Your task to perform on an android device: create a new album in the google photos Image 0: 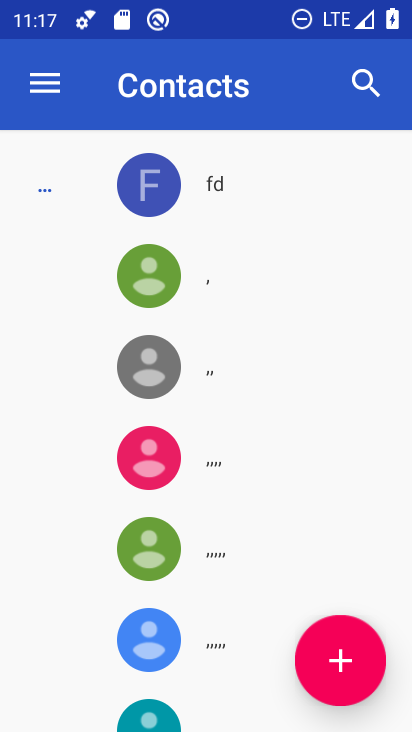
Step 0: press home button
Your task to perform on an android device: create a new album in the google photos Image 1: 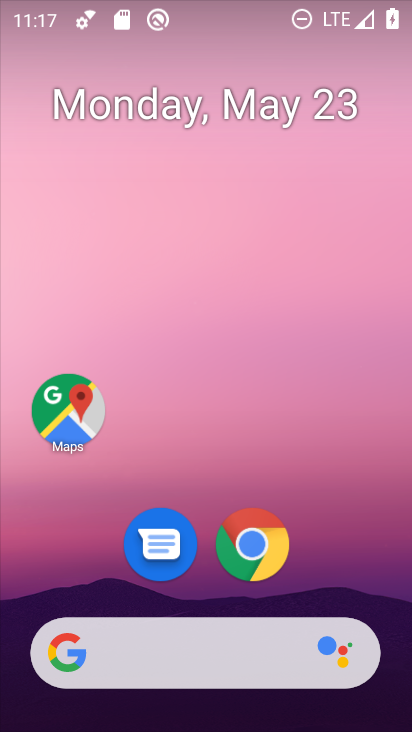
Step 1: drag from (383, 607) to (337, 59)
Your task to perform on an android device: create a new album in the google photos Image 2: 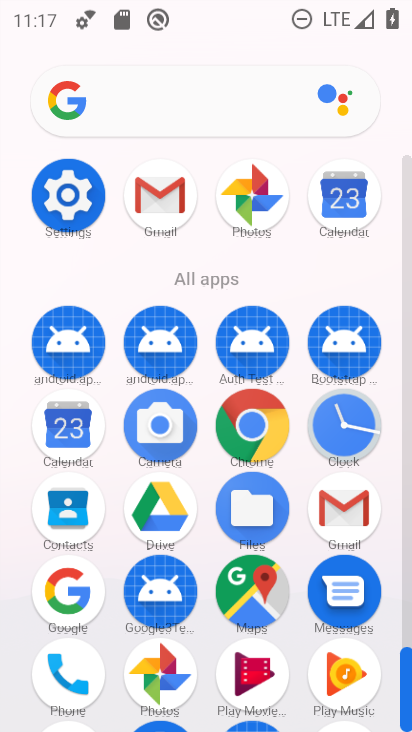
Step 2: click (161, 673)
Your task to perform on an android device: create a new album in the google photos Image 3: 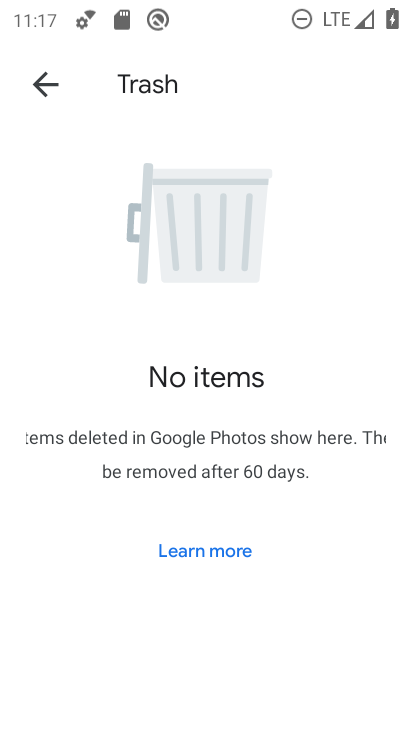
Step 3: press home button
Your task to perform on an android device: create a new album in the google photos Image 4: 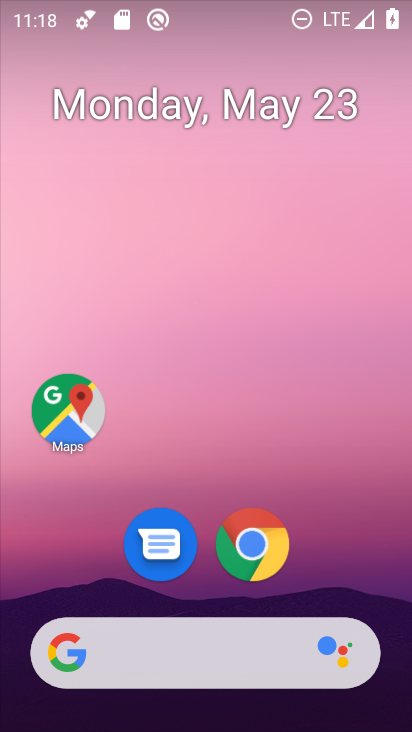
Step 4: drag from (374, 577) to (328, 112)
Your task to perform on an android device: create a new album in the google photos Image 5: 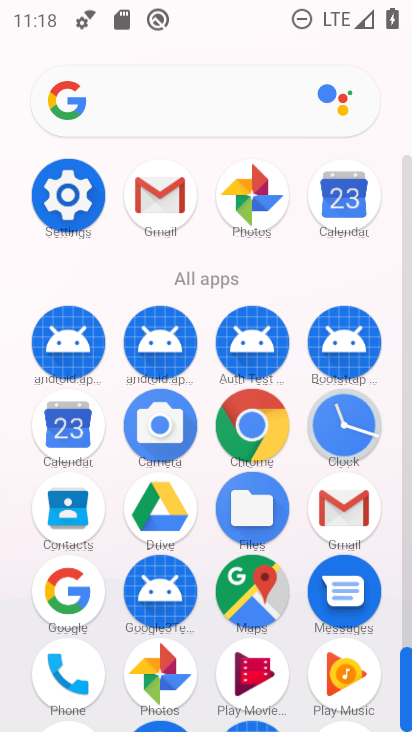
Step 5: click (410, 616)
Your task to perform on an android device: create a new album in the google photos Image 6: 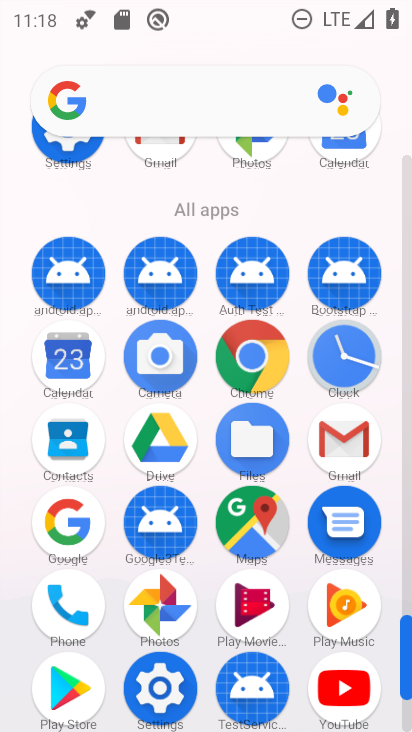
Step 6: click (162, 603)
Your task to perform on an android device: create a new album in the google photos Image 7: 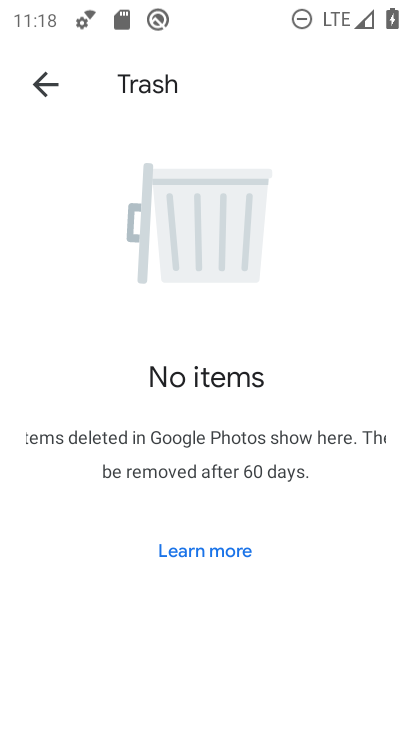
Step 7: press back button
Your task to perform on an android device: create a new album in the google photos Image 8: 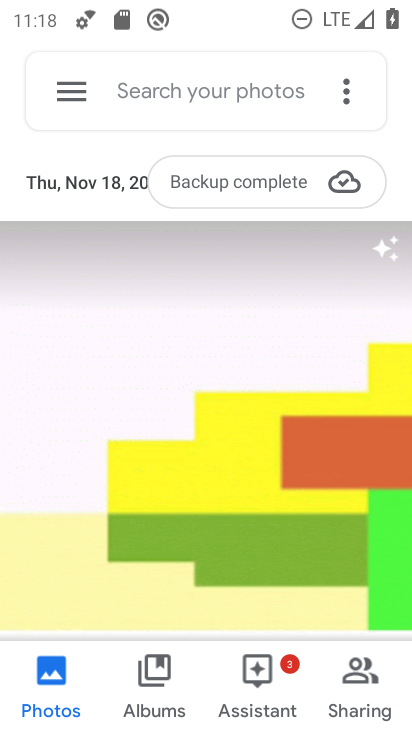
Step 8: click (157, 675)
Your task to perform on an android device: create a new album in the google photos Image 9: 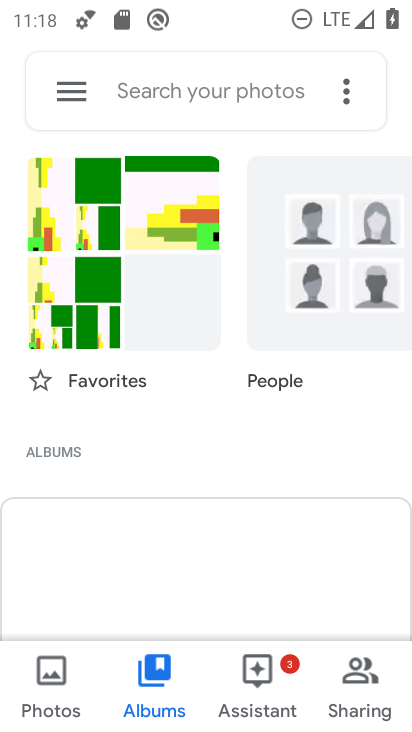
Step 9: drag from (195, 550) to (231, 228)
Your task to perform on an android device: create a new album in the google photos Image 10: 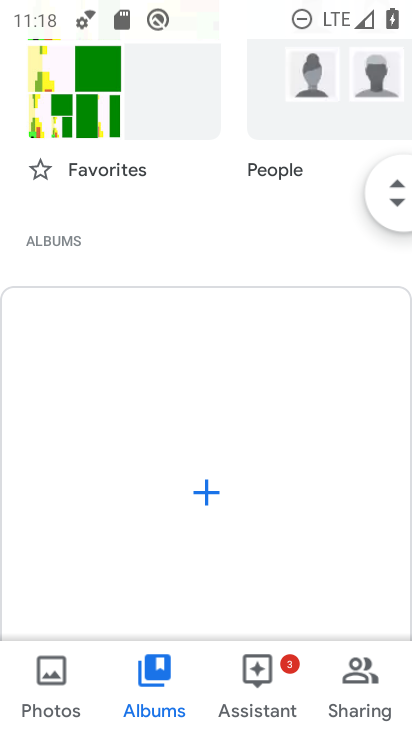
Step 10: click (200, 485)
Your task to perform on an android device: create a new album in the google photos Image 11: 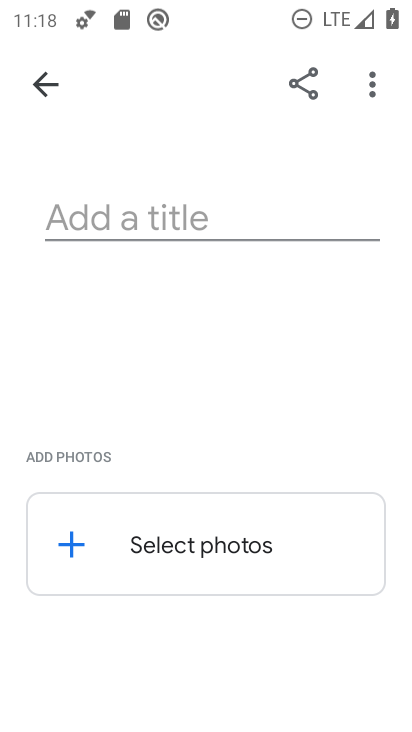
Step 11: click (122, 213)
Your task to perform on an android device: create a new album in the google photos Image 12: 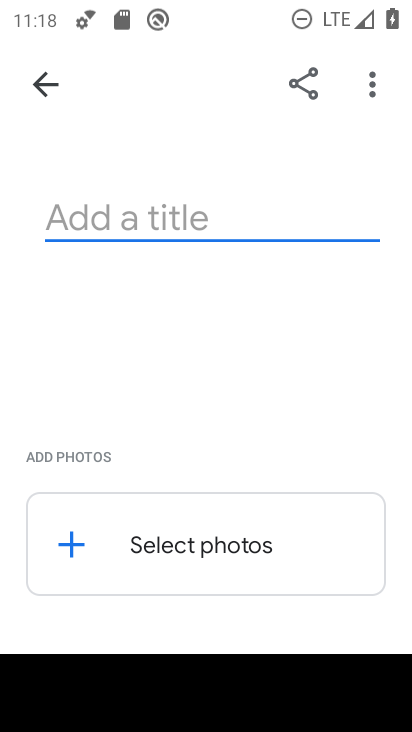
Step 12: type "gkghfh"
Your task to perform on an android device: create a new album in the google photos Image 13: 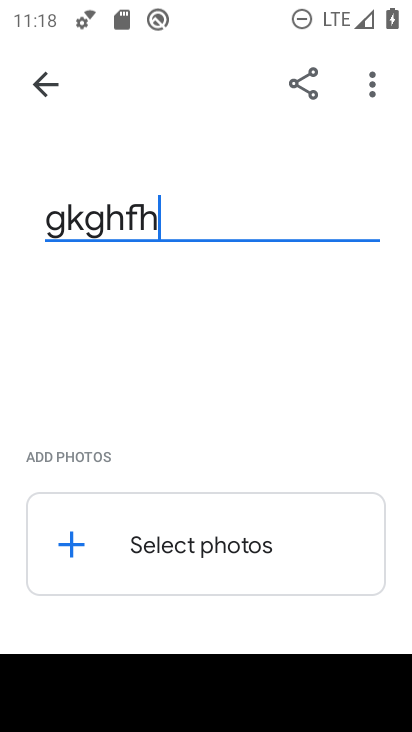
Step 13: click (74, 543)
Your task to perform on an android device: create a new album in the google photos Image 14: 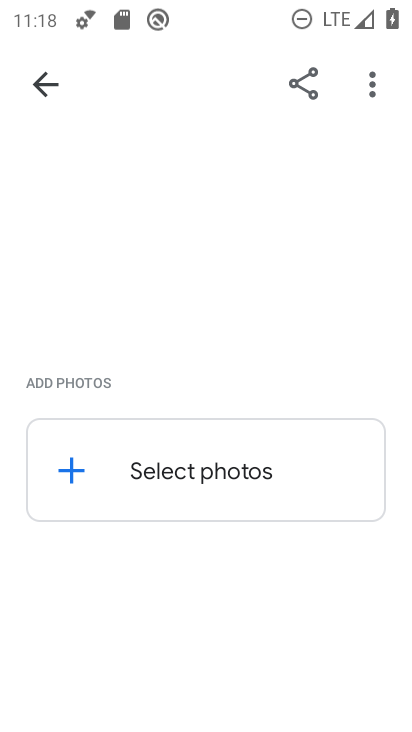
Step 14: click (71, 467)
Your task to perform on an android device: create a new album in the google photos Image 15: 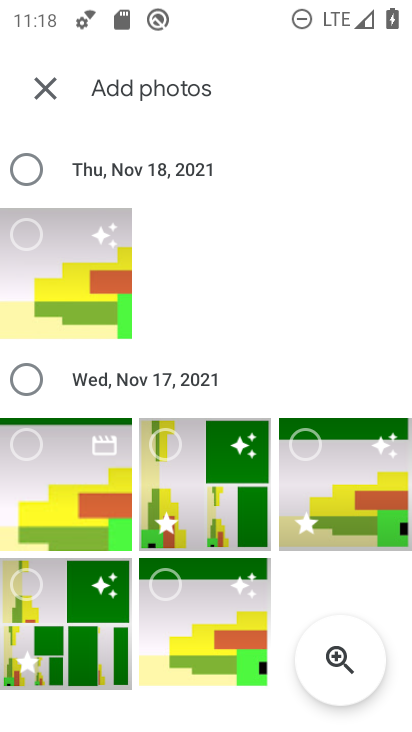
Step 15: click (30, 448)
Your task to perform on an android device: create a new album in the google photos Image 16: 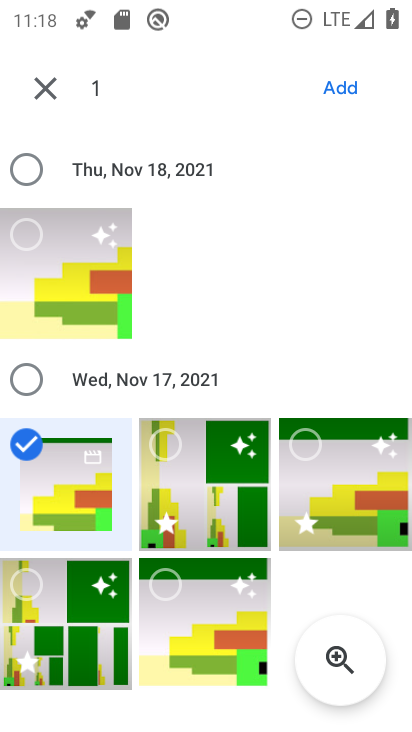
Step 16: click (159, 448)
Your task to perform on an android device: create a new album in the google photos Image 17: 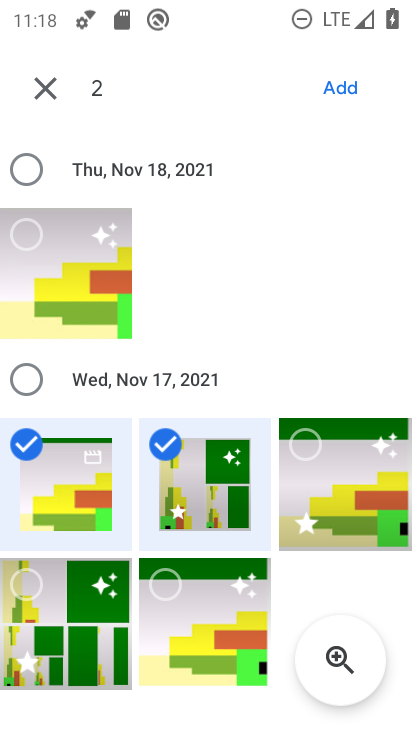
Step 17: click (338, 80)
Your task to perform on an android device: create a new album in the google photos Image 18: 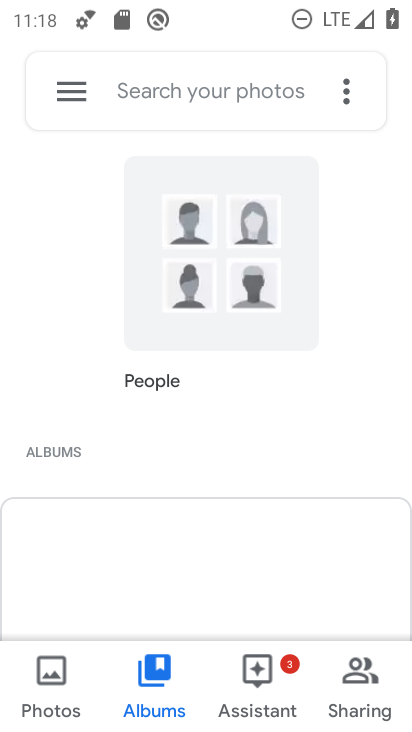
Step 18: task complete